Your task to perform on an android device: set an alarm Image 0: 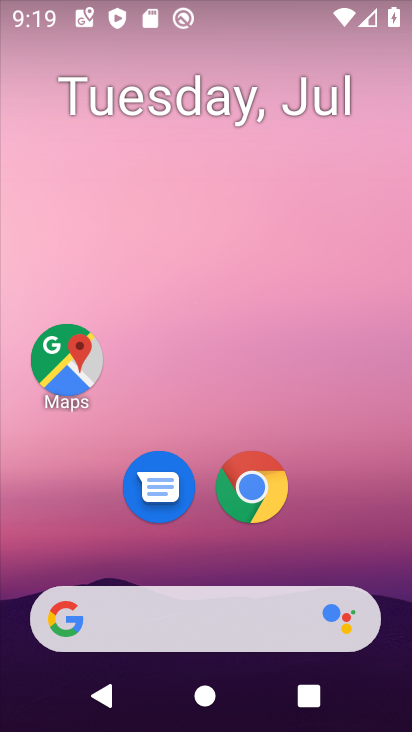
Step 0: drag from (113, 536) to (185, 81)
Your task to perform on an android device: set an alarm Image 1: 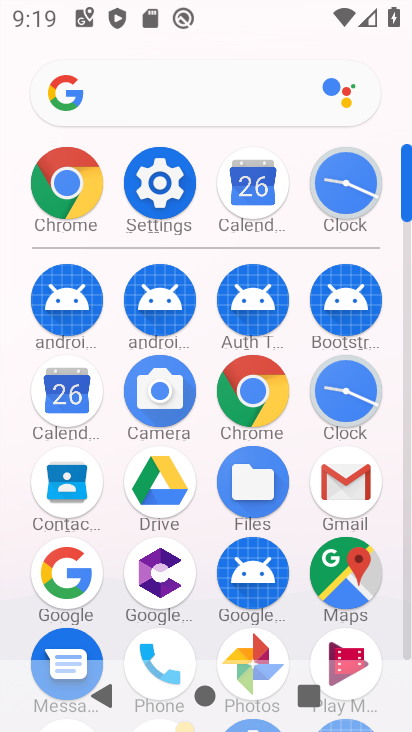
Step 1: click (351, 184)
Your task to perform on an android device: set an alarm Image 2: 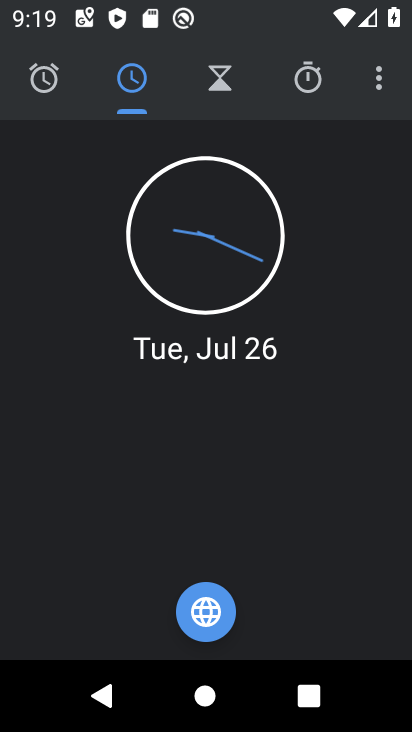
Step 2: click (65, 77)
Your task to perform on an android device: set an alarm Image 3: 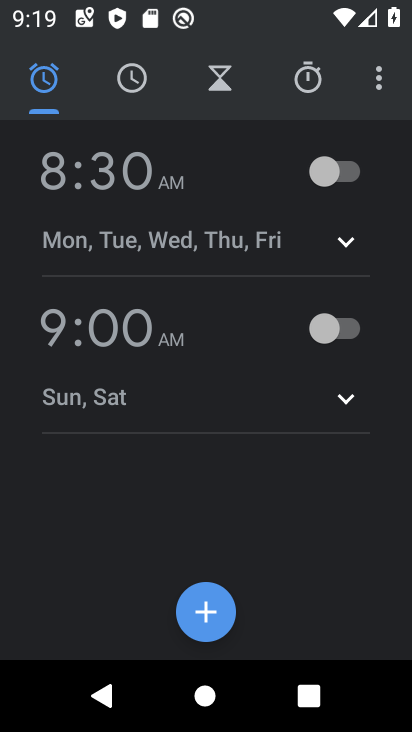
Step 3: click (327, 169)
Your task to perform on an android device: set an alarm Image 4: 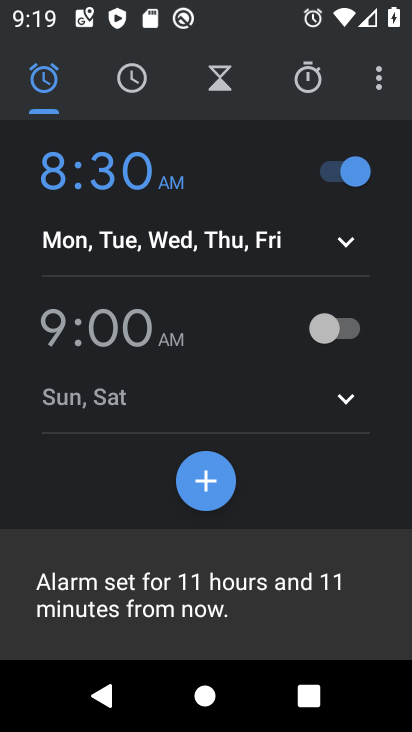
Step 4: task complete